Your task to perform on an android device: turn off improve location accuracy Image 0: 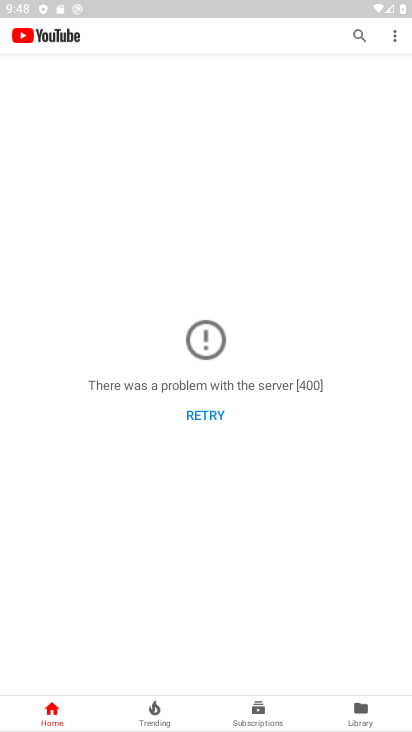
Step 0: press home button
Your task to perform on an android device: turn off improve location accuracy Image 1: 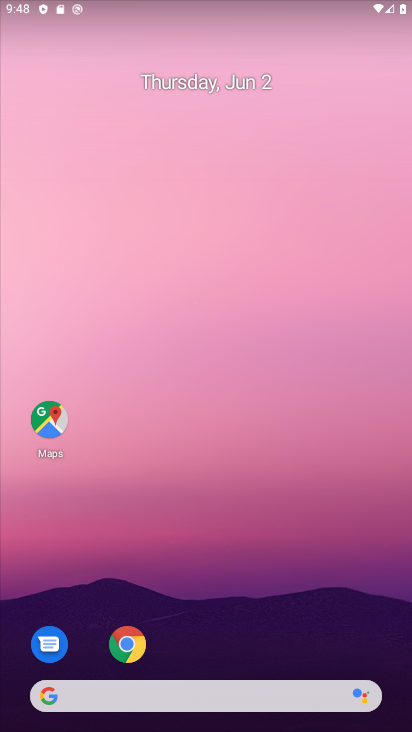
Step 1: drag from (206, 637) to (257, 187)
Your task to perform on an android device: turn off improve location accuracy Image 2: 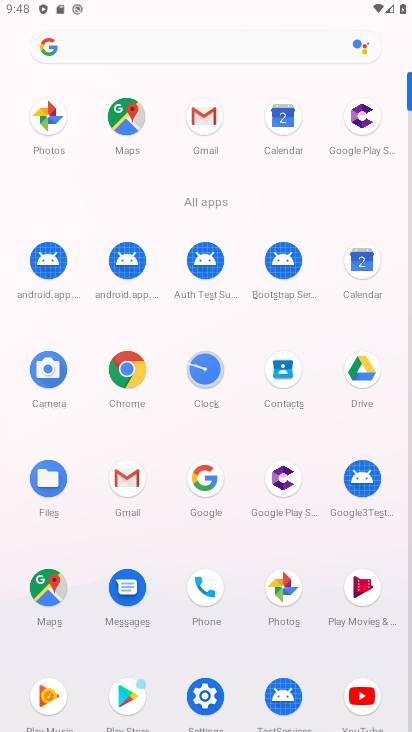
Step 2: click (202, 695)
Your task to perform on an android device: turn off improve location accuracy Image 3: 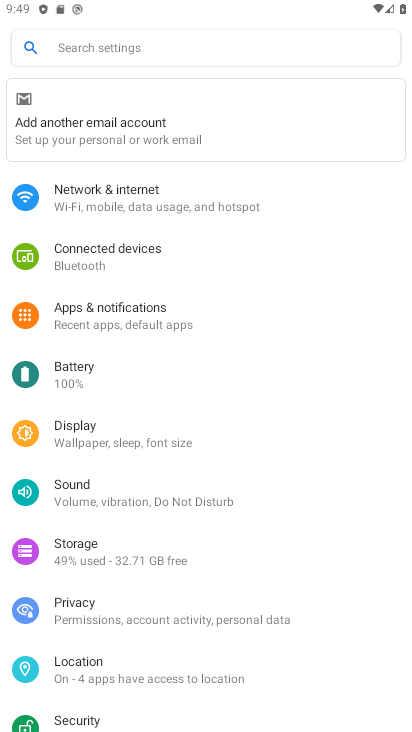
Step 3: click (126, 662)
Your task to perform on an android device: turn off improve location accuracy Image 4: 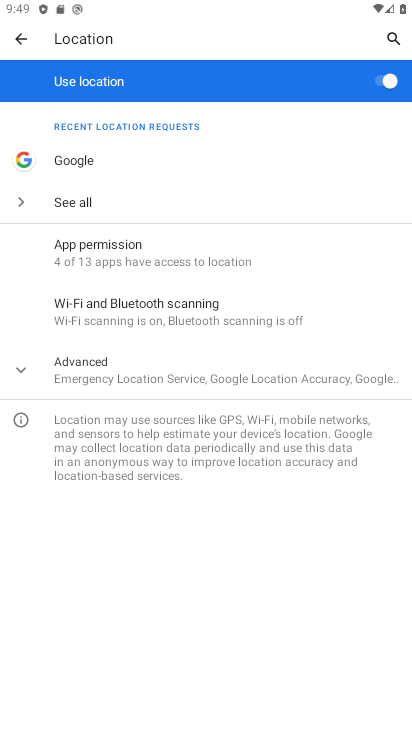
Step 4: click (105, 380)
Your task to perform on an android device: turn off improve location accuracy Image 5: 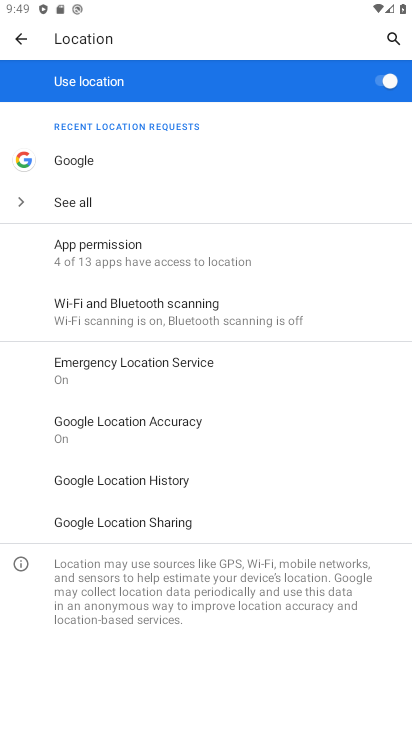
Step 5: click (120, 433)
Your task to perform on an android device: turn off improve location accuracy Image 6: 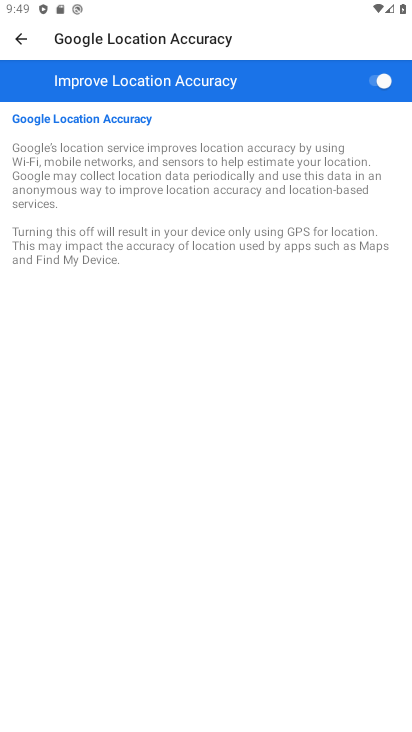
Step 6: click (378, 79)
Your task to perform on an android device: turn off improve location accuracy Image 7: 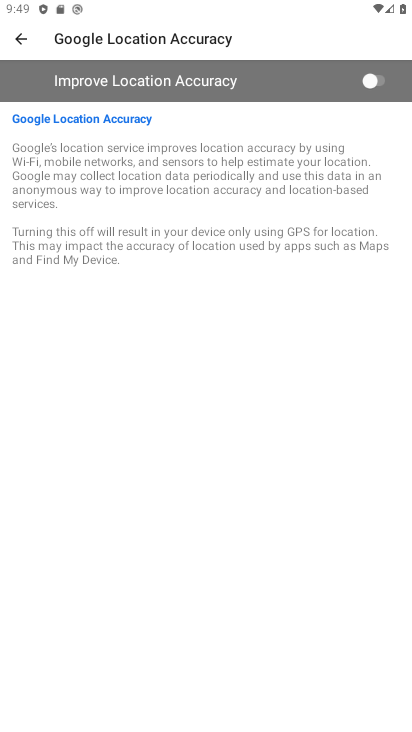
Step 7: task complete